Your task to perform on an android device: toggle airplane mode Image 0: 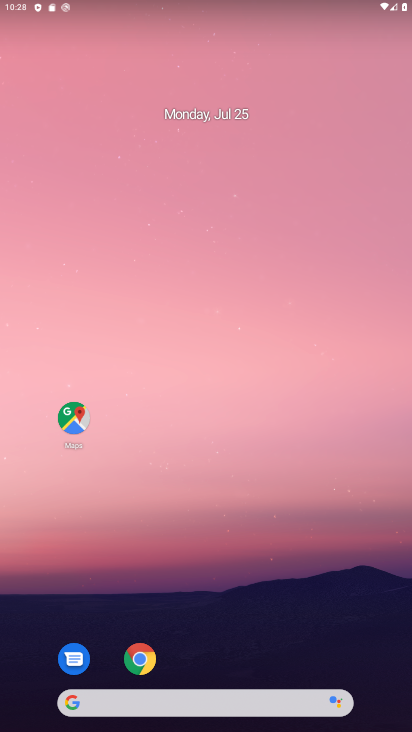
Step 0: click (79, 427)
Your task to perform on an android device: toggle airplane mode Image 1: 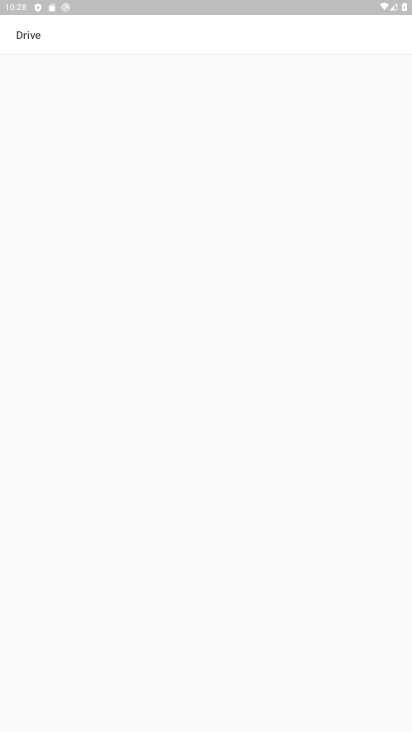
Step 1: press home button
Your task to perform on an android device: toggle airplane mode Image 2: 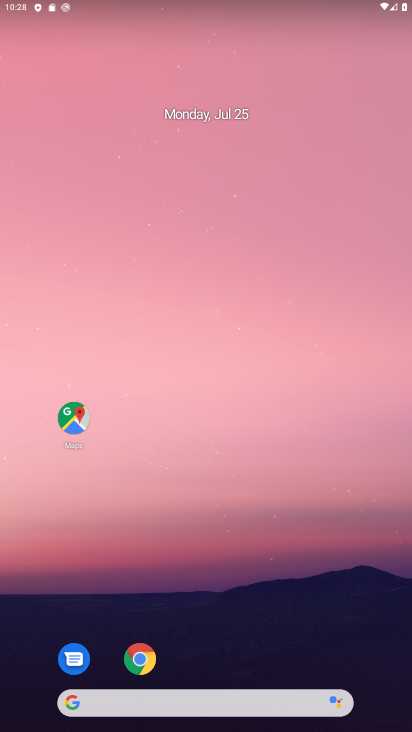
Step 2: drag from (211, 675) to (206, 52)
Your task to perform on an android device: toggle airplane mode Image 3: 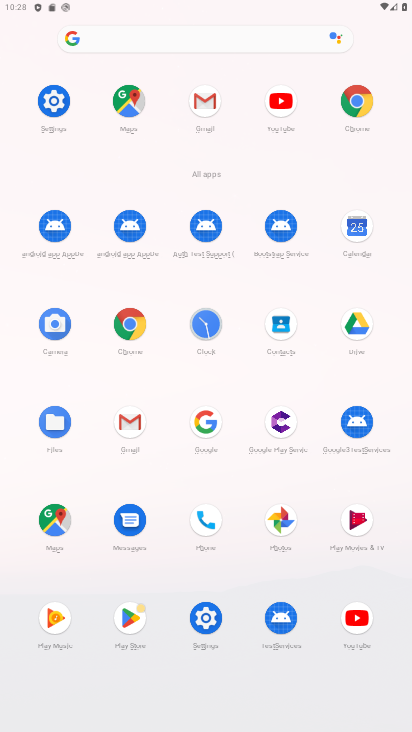
Step 3: click (57, 100)
Your task to perform on an android device: toggle airplane mode Image 4: 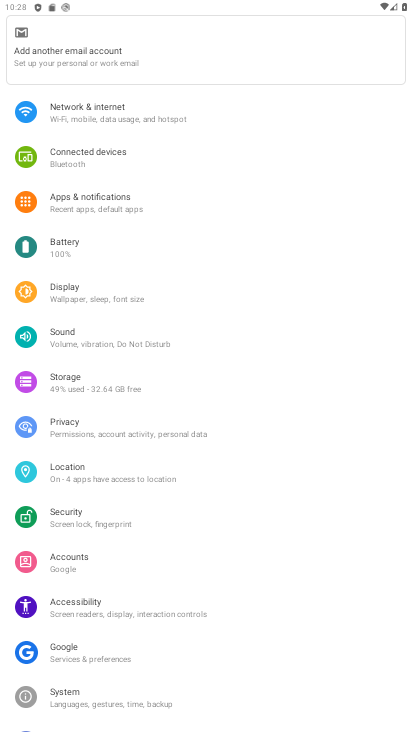
Step 4: click (101, 117)
Your task to perform on an android device: toggle airplane mode Image 5: 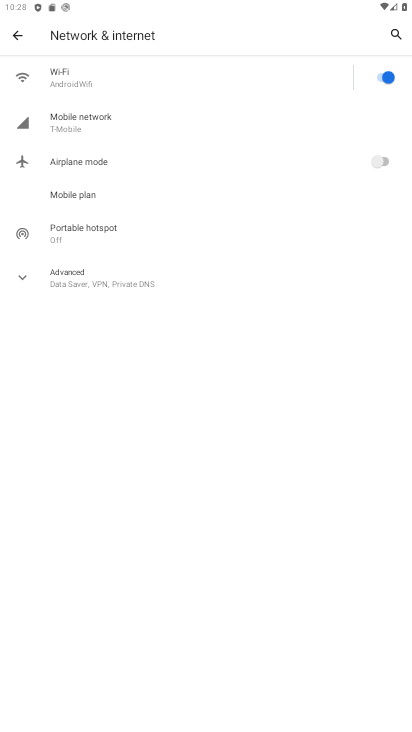
Step 5: click (369, 161)
Your task to perform on an android device: toggle airplane mode Image 6: 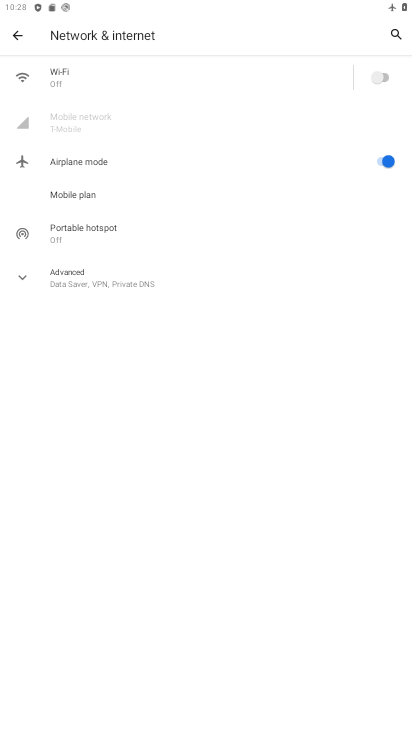
Step 6: task complete